Your task to perform on an android device: Open calendar and show me the third week of next month Image 0: 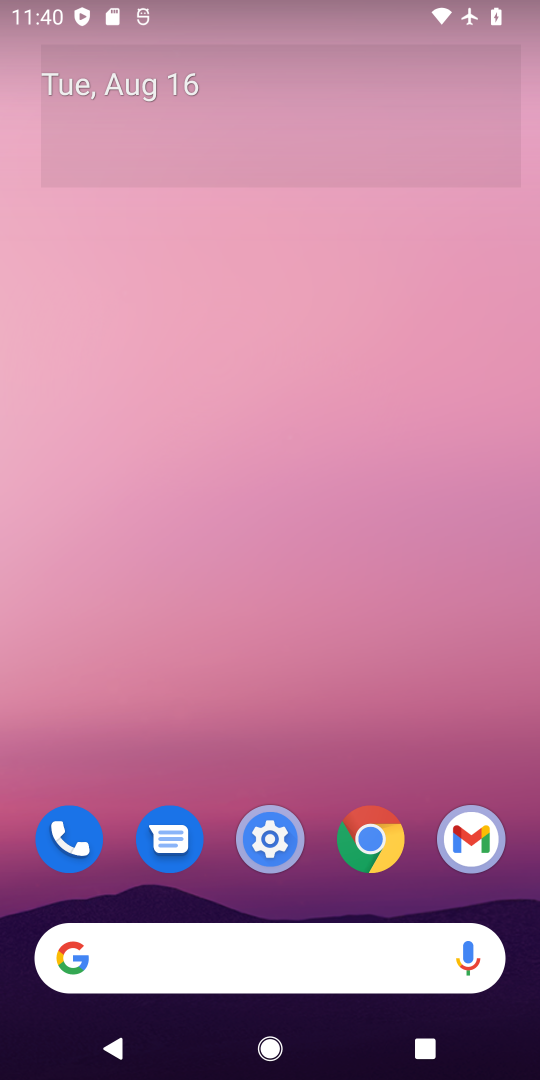
Step 0: drag from (207, 860) to (251, 7)
Your task to perform on an android device: Open calendar and show me the third week of next month Image 1: 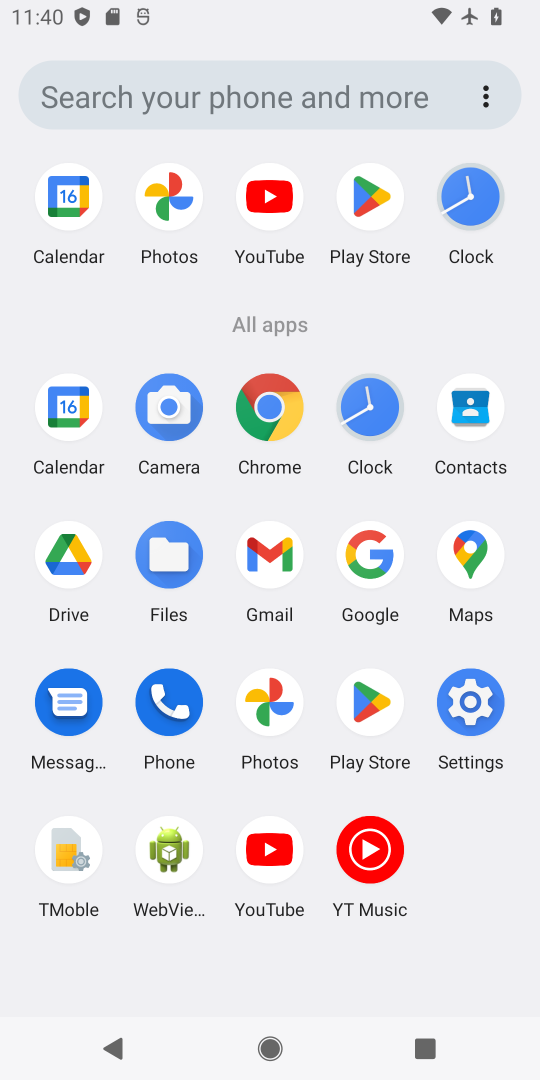
Step 1: click (79, 419)
Your task to perform on an android device: Open calendar and show me the third week of next month Image 2: 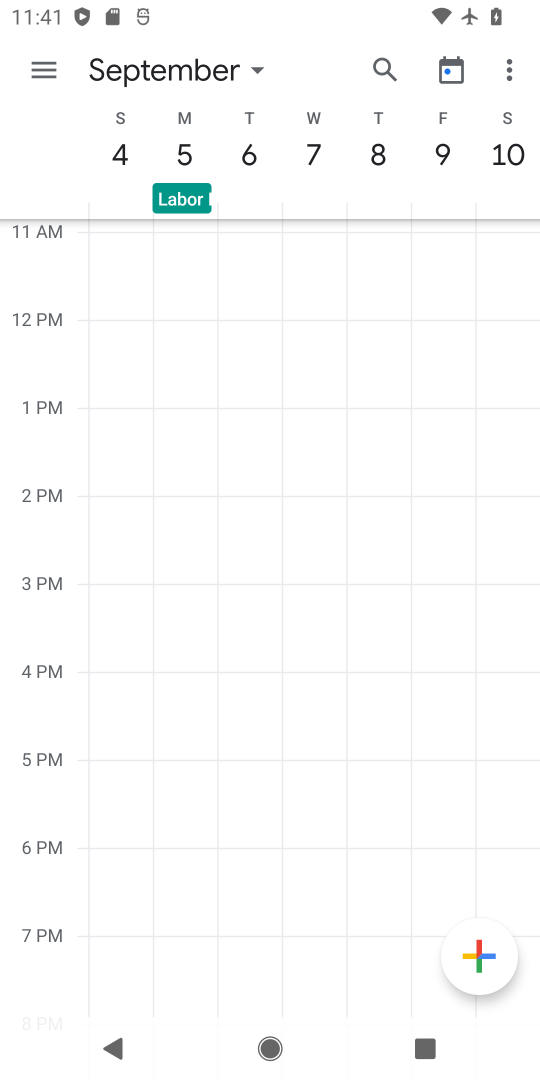
Step 2: task complete